Your task to perform on an android device: toggle sleep mode Image 0: 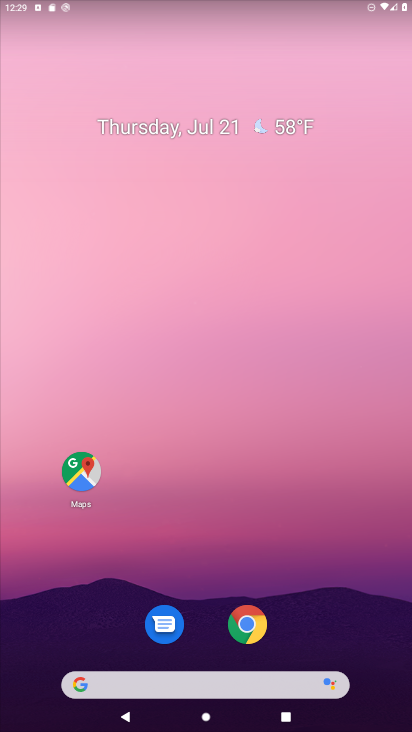
Step 0: drag from (212, 579) to (198, 90)
Your task to perform on an android device: toggle sleep mode Image 1: 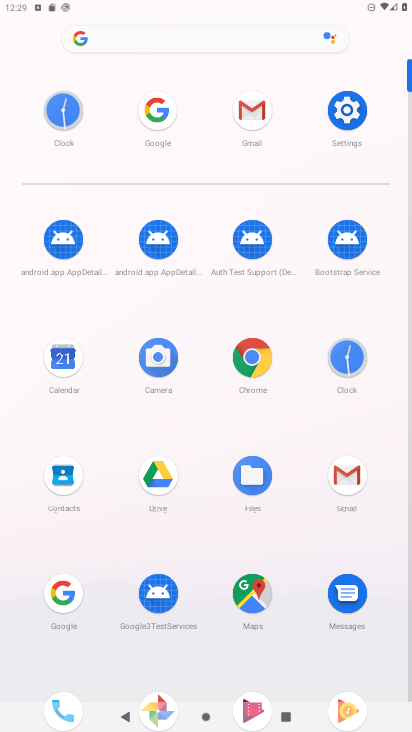
Step 1: click (334, 123)
Your task to perform on an android device: toggle sleep mode Image 2: 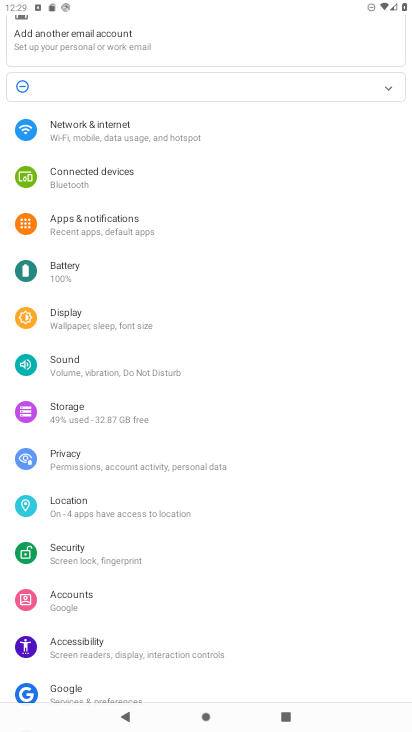
Step 2: click (87, 325)
Your task to perform on an android device: toggle sleep mode Image 3: 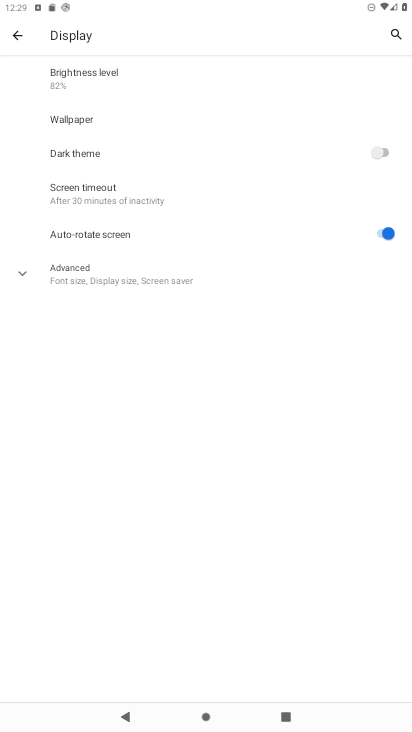
Step 3: click (123, 194)
Your task to perform on an android device: toggle sleep mode Image 4: 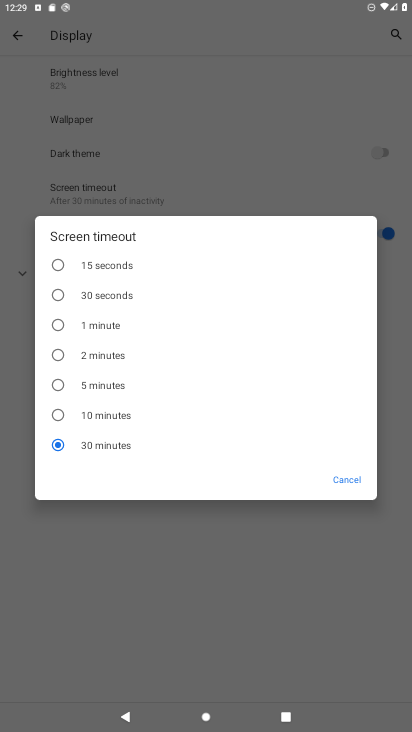
Step 4: click (112, 316)
Your task to perform on an android device: toggle sleep mode Image 5: 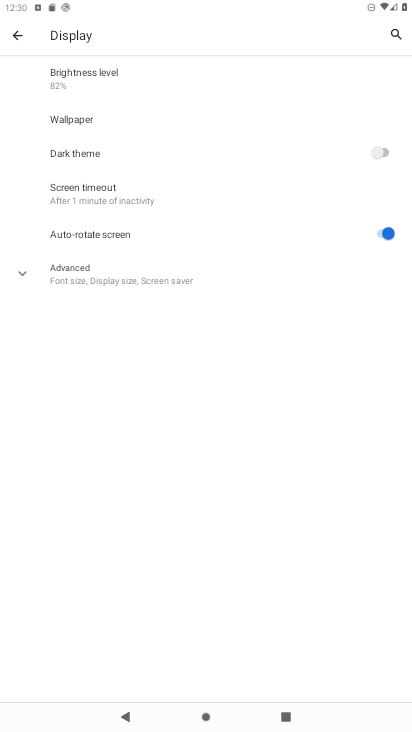
Step 5: click (116, 200)
Your task to perform on an android device: toggle sleep mode Image 6: 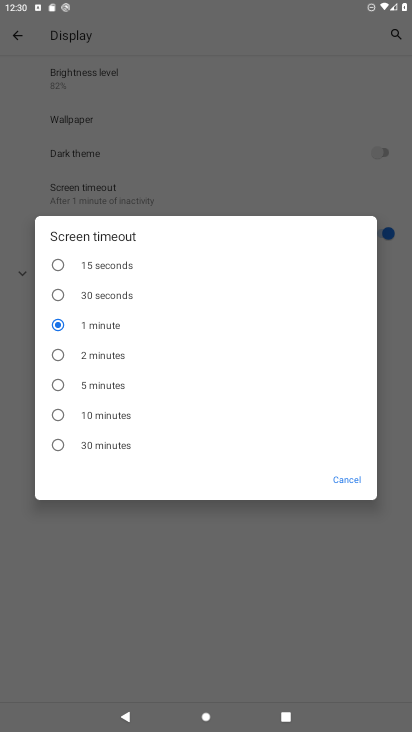
Step 6: click (90, 393)
Your task to perform on an android device: toggle sleep mode Image 7: 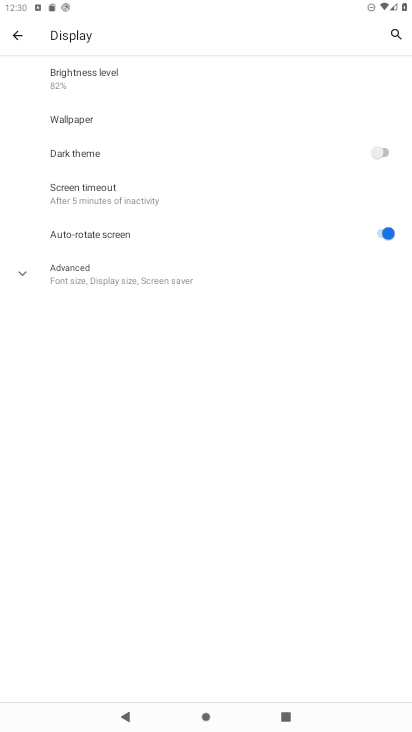
Step 7: task complete